Your task to perform on an android device: Open notification settings Image 0: 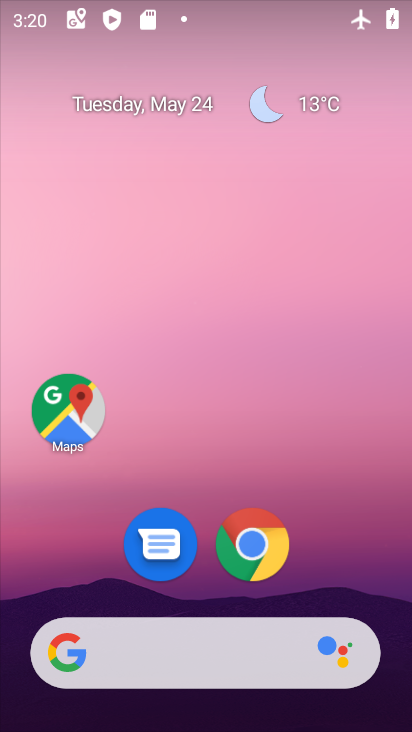
Step 0: drag from (336, 573) to (246, 0)
Your task to perform on an android device: Open notification settings Image 1: 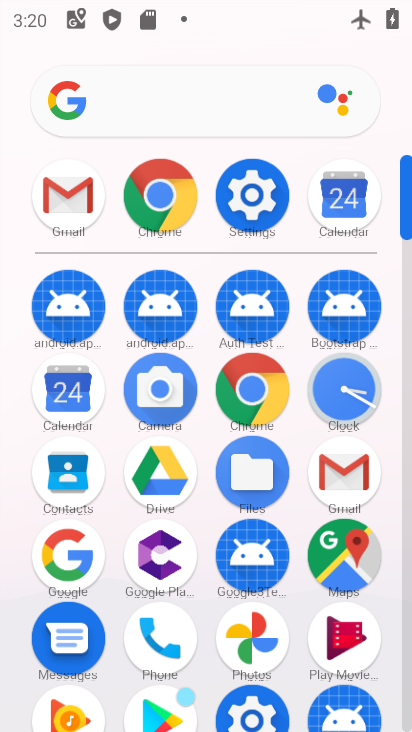
Step 1: click (246, 236)
Your task to perform on an android device: Open notification settings Image 2: 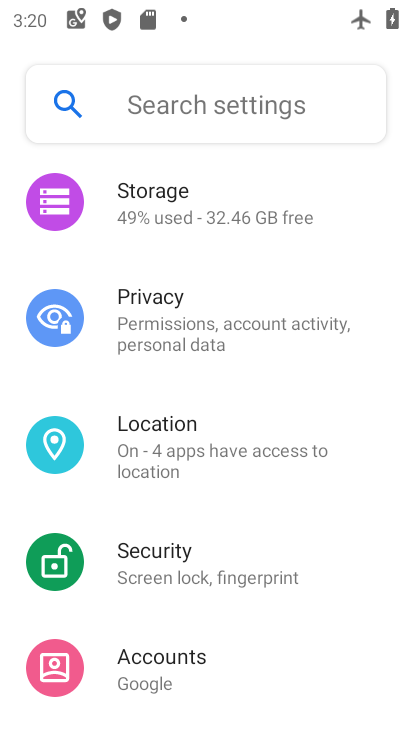
Step 2: drag from (187, 278) to (208, 610)
Your task to perform on an android device: Open notification settings Image 3: 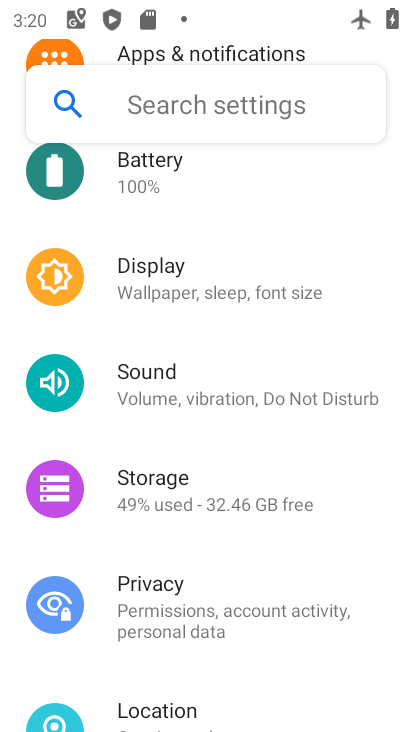
Step 3: drag from (239, 258) to (245, 665)
Your task to perform on an android device: Open notification settings Image 4: 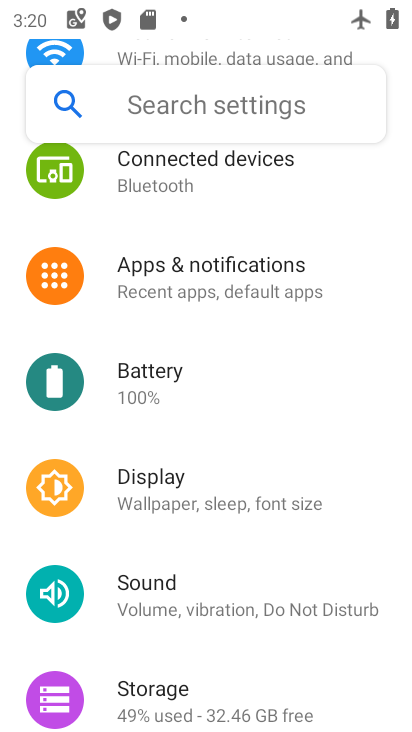
Step 4: click (225, 289)
Your task to perform on an android device: Open notification settings Image 5: 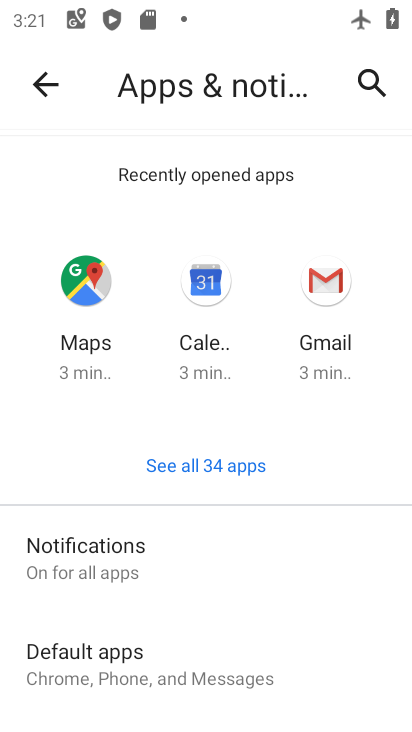
Step 5: click (76, 560)
Your task to perform on an android device: Open notification settings Image 6: 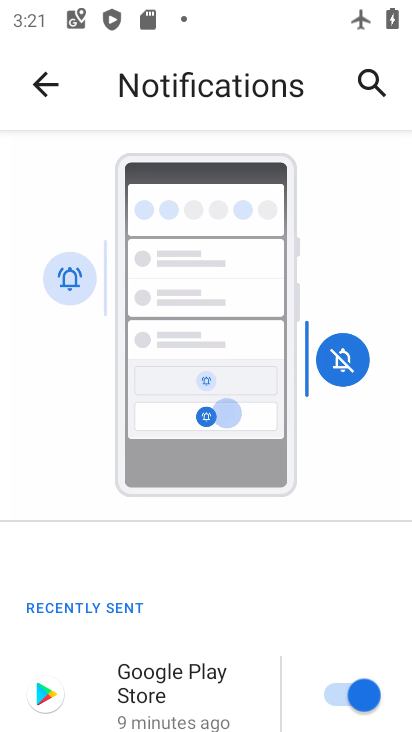
Step 6: drag from (122, 655) to (148, 142)
Your task to perform on an android device: Open notification settings Image 7: 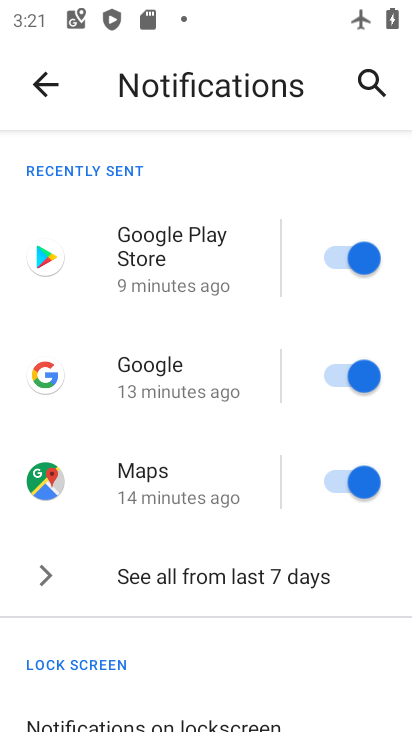
Step 7: drag from (184, 576) to (219, 106)
Your task to perform on an android device: Open notification settings Image 8: 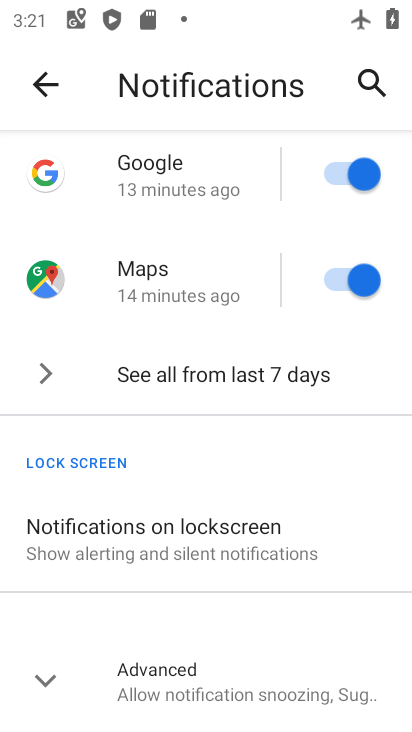
Step 8: click (178, 686)
Your task to perform on an android device: Open notification settings Image 9: 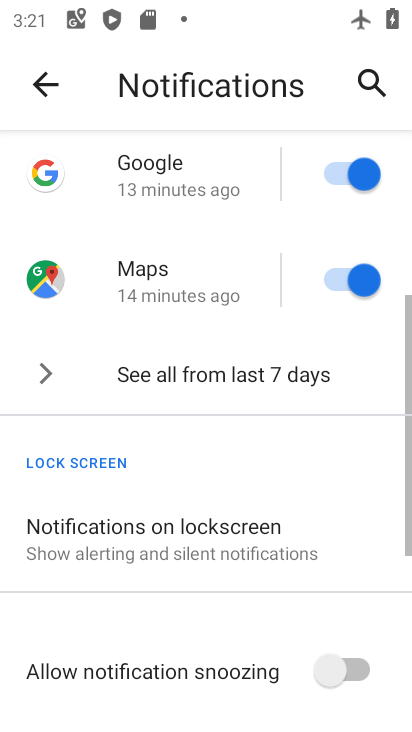
Step 9: task complete